Your task to perform on an android device: add a label to a message in the gmail app Image 0: 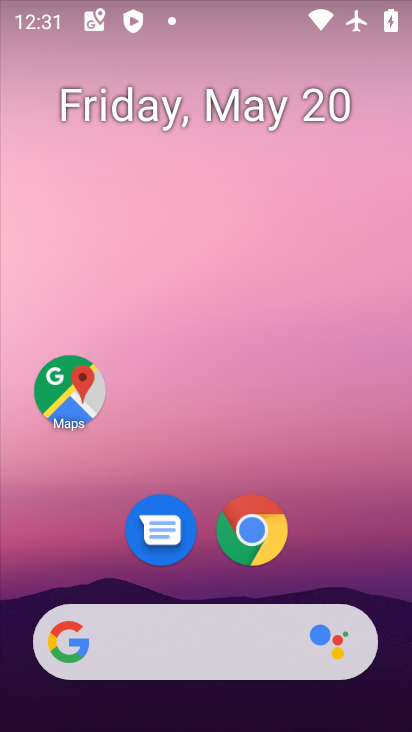
Step 0: drag from (156, 681) to (408, 330)
Your task to perform on an android device: add a label to a message in the gmail app Image 1: 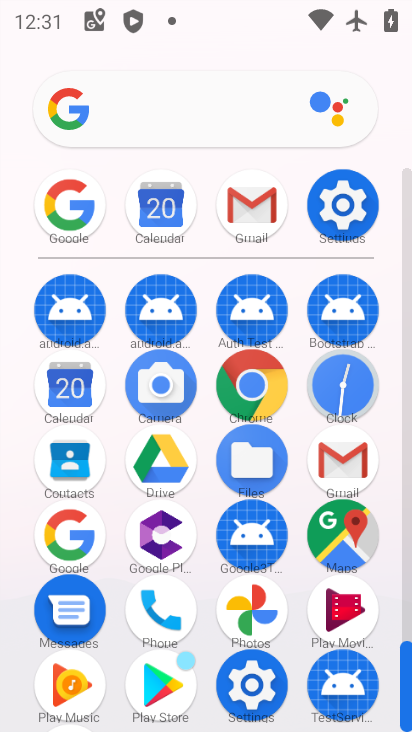
Step 1: click (228, 219)
Your task to perform on an android device: add a label to a message in the gmail app Image 2: 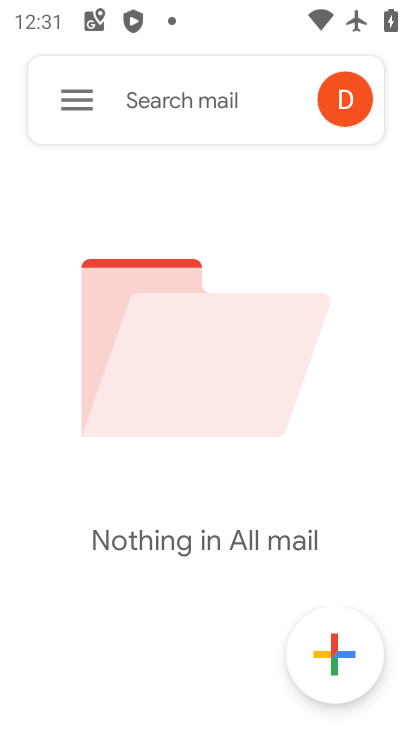
Step 2: task complete